Your task to perform on an android device: Clear the cart on newegg.com. Search for acer nitro on newegg.com, select the first entry, add it to the cart, then select checkout. Image 0: 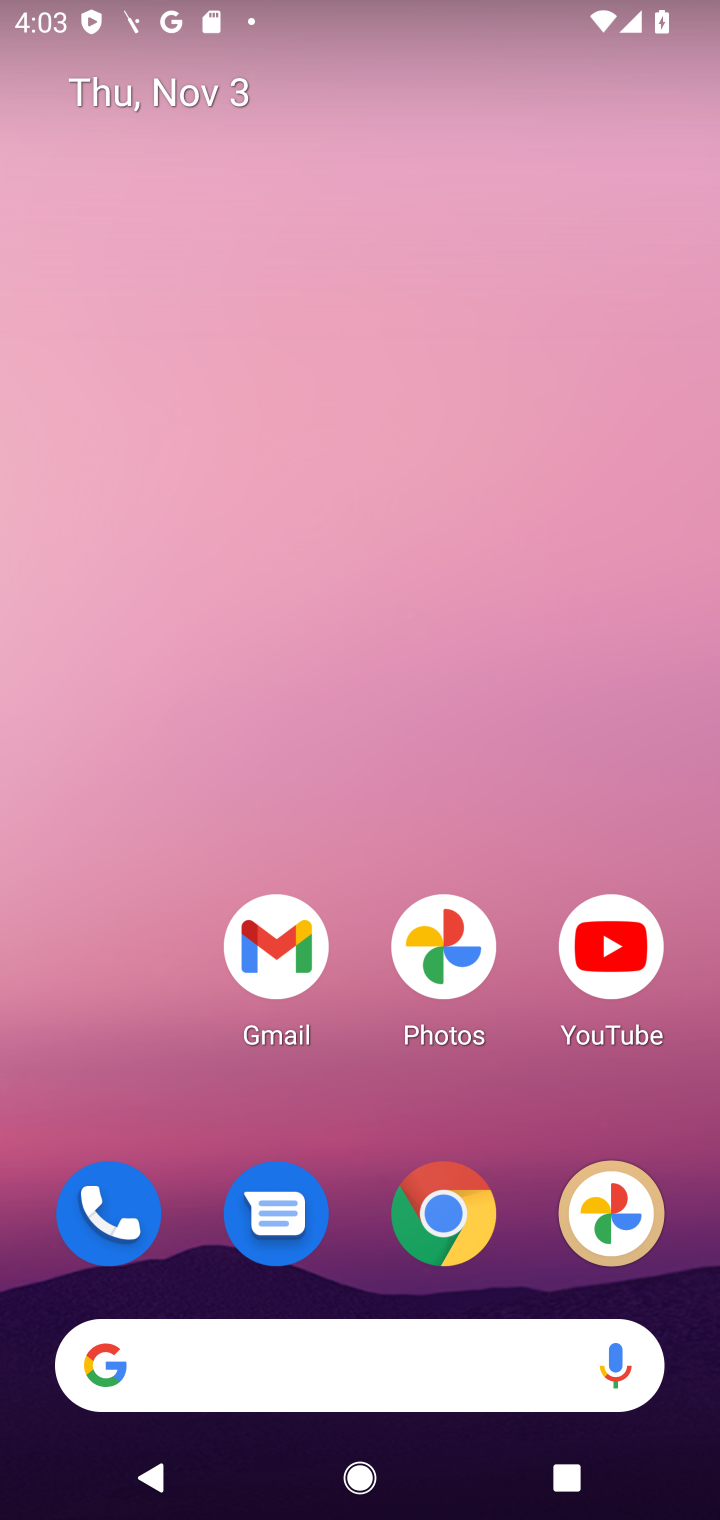
Step 0: click (453, 1229)
Your task to perform on an android device: Clear the cart on newegg.com. Search for acer nitro on newegg.com, select the first entry, add it to the cart, then select checkout. Image 1: 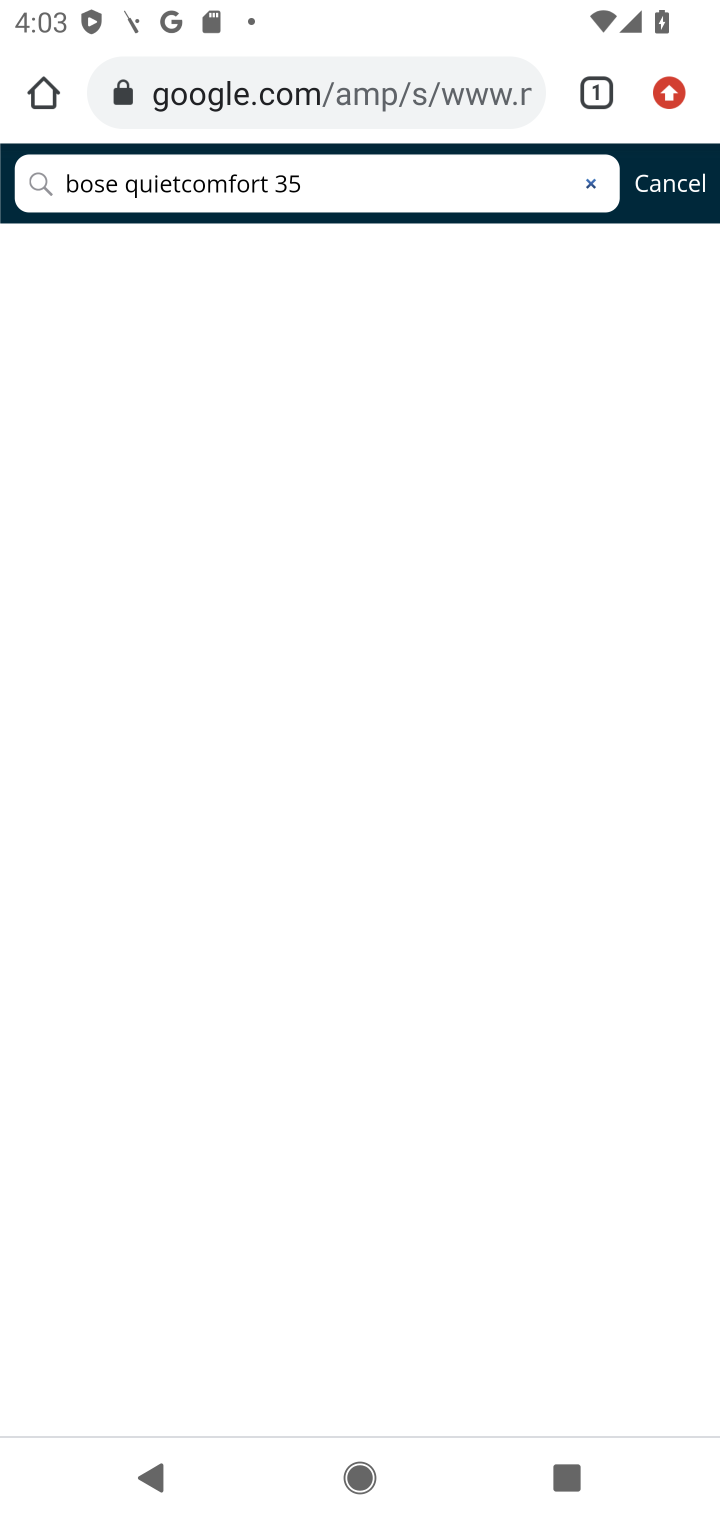
Step 1: click (300, 95)
Your task to perform on an android device: Clear the cart on newegg.com. Search for acer nitro on newegg.com, select the first entry, add it to the cart, then select checkout. Image 2: 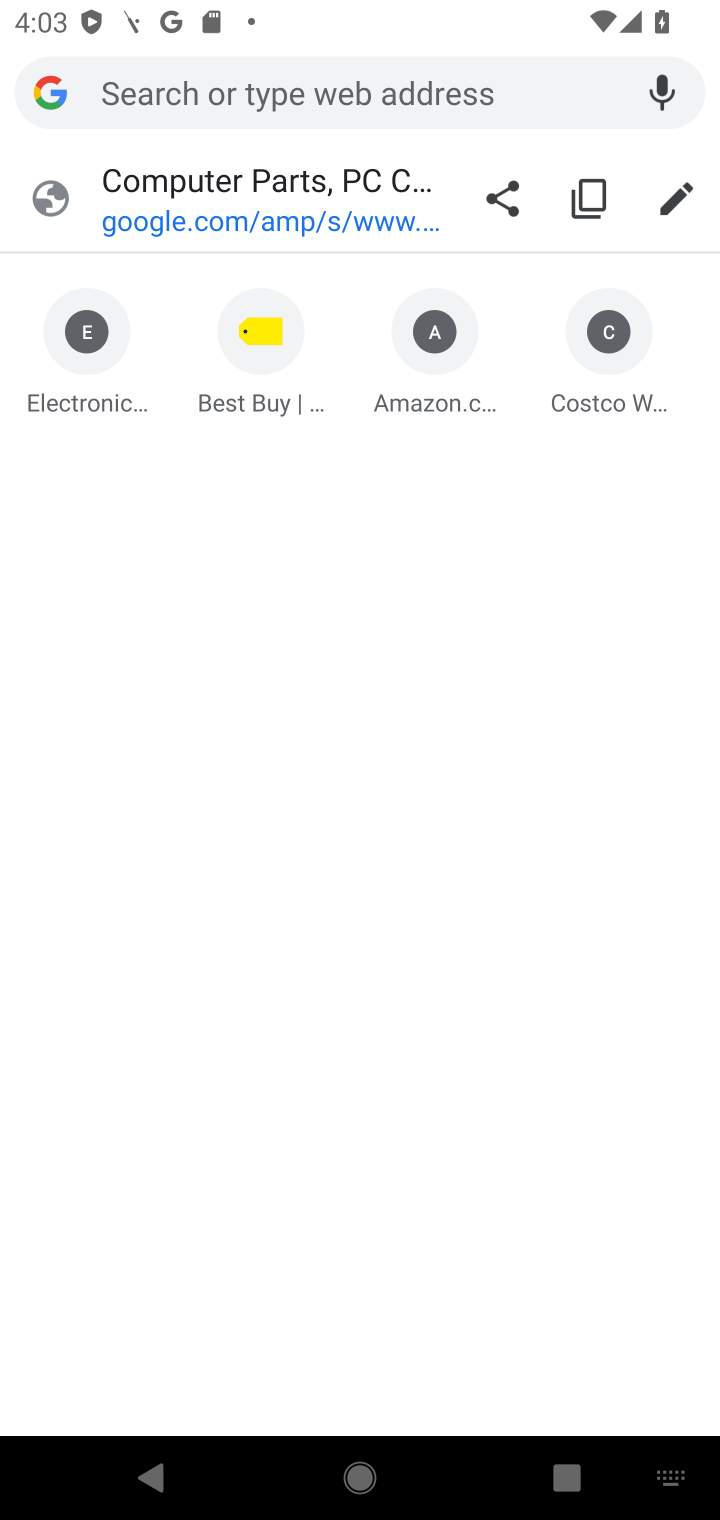
Step 2: type "newegg.com"
Your task to perform on an android device: Clear the cart on newegg.com. Search for acer nitro on newegg.com, select the first entry, add it to the cart, then select checkout. Image 3: 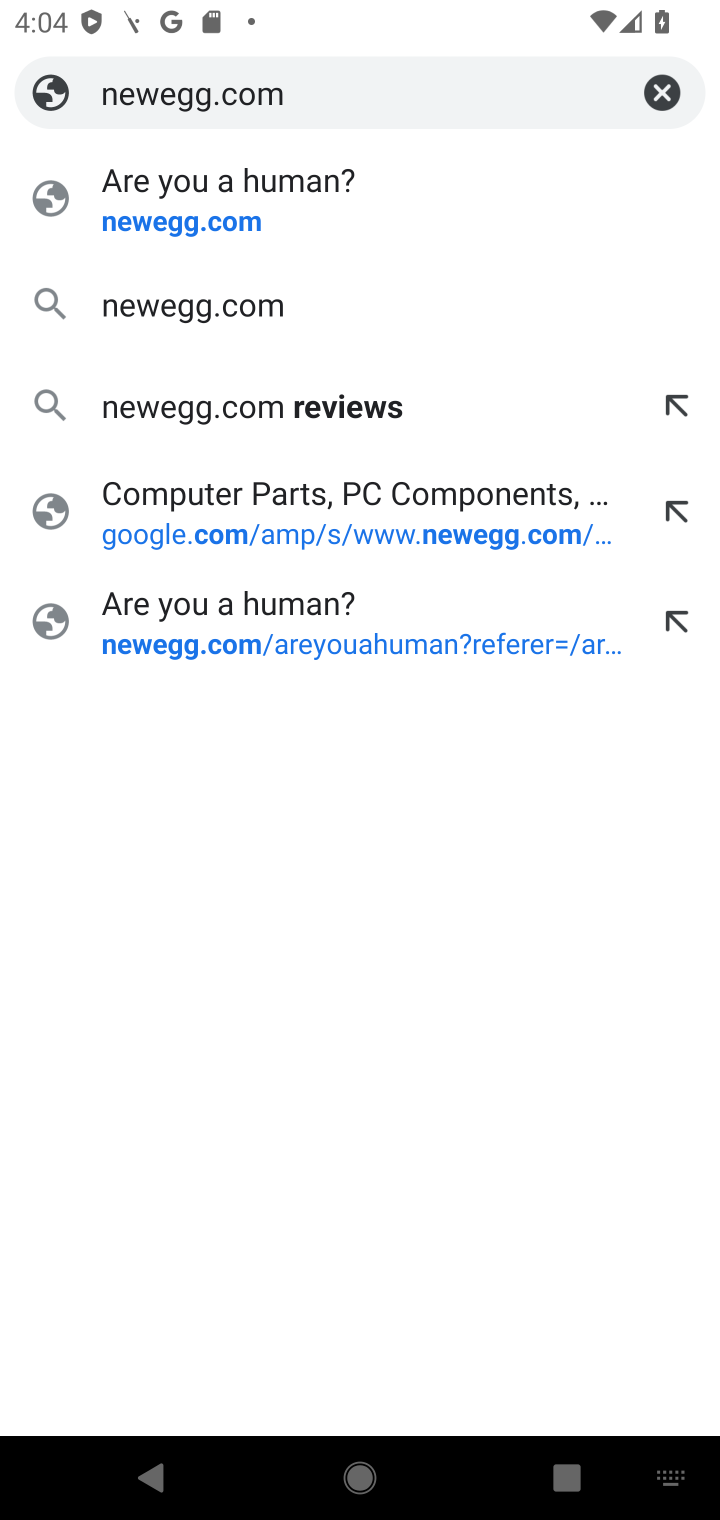
Step 3: click (133, 316)
Your task to perform on an android device: Clear the cart on newegg.com. Search for acer nitro on newegg.com, select the first entry, add it to the cart, then select checkout. Image 4: 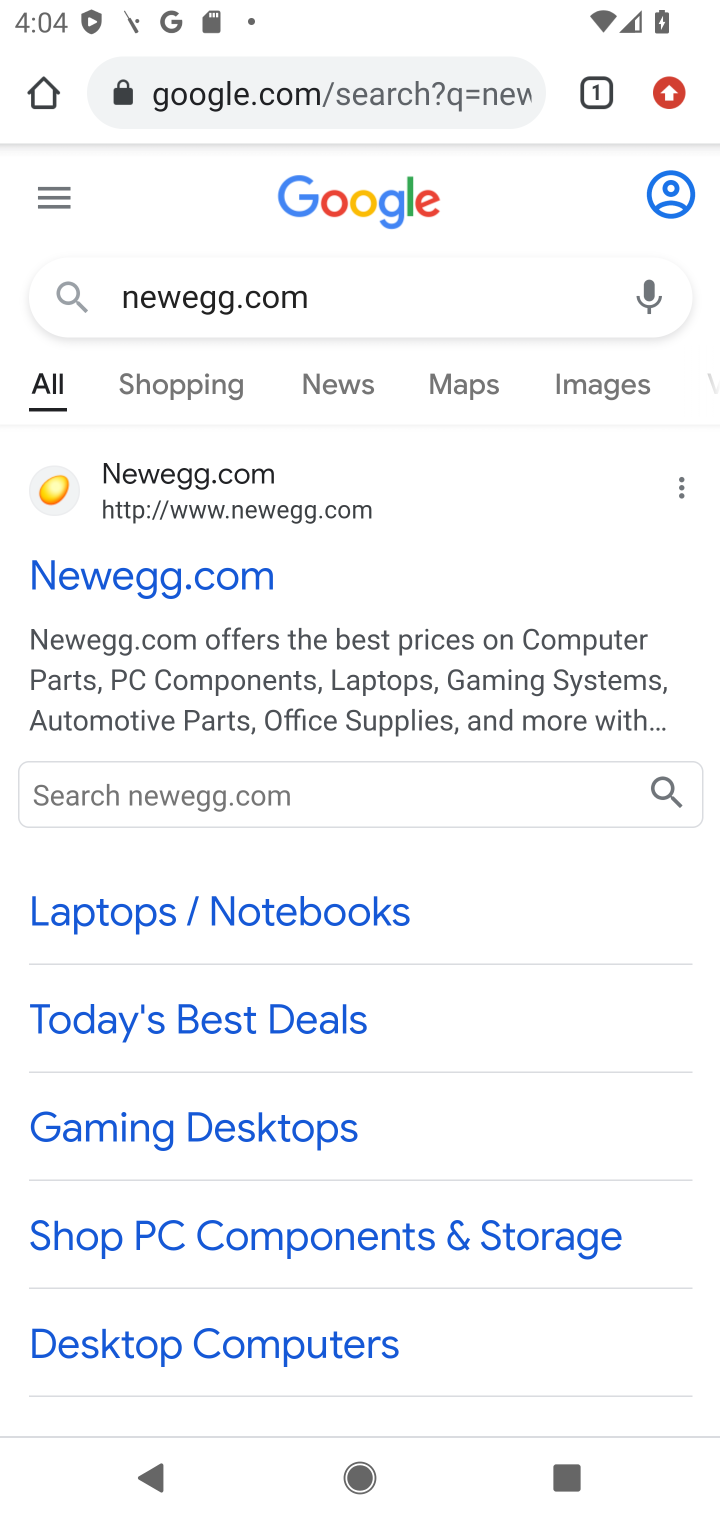
Step 4: click (136, 582)
Your task to perform on an android device: Clear the cart on newegg.com. Search for acer nitro on newegg.com, select the first entry, add it to the cart, then select checkout. Image 5: 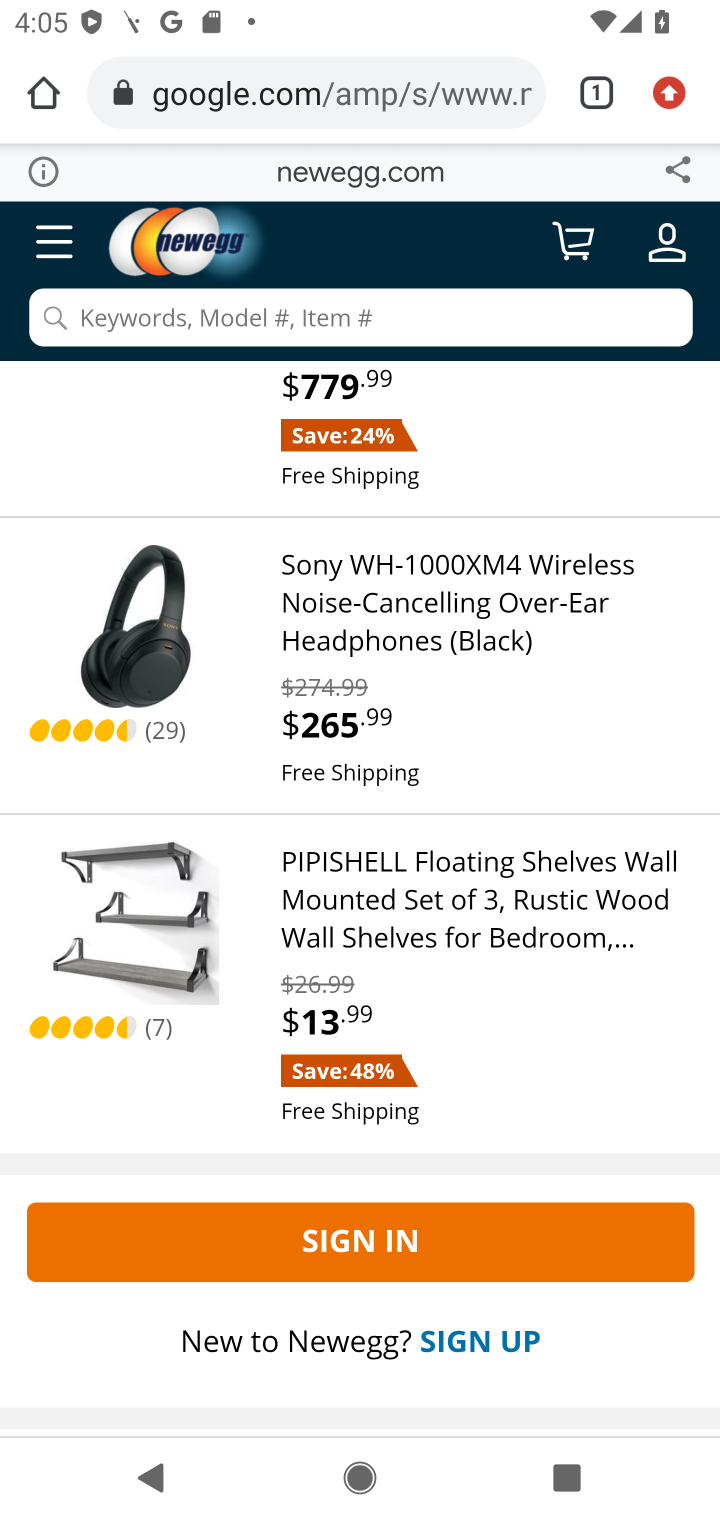
Step 5: click (255, 336)
Your task to perform on an android device: Clear the cart on newegg.com. Search for acer nitro on newegg.com, select the first entry, add it to the cart, then select checkout. Image 6: 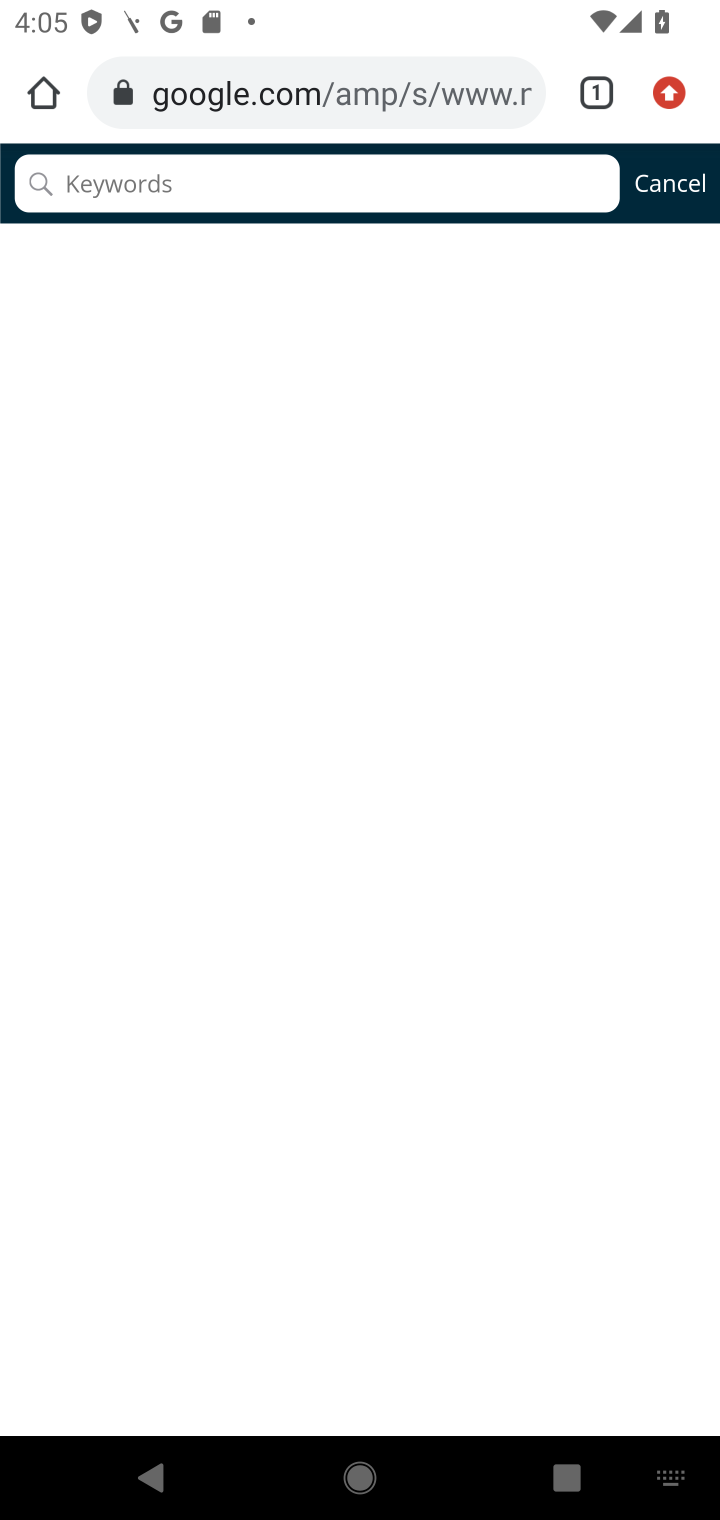
Step 6: type "acer nitro"
Your task to perform on an android device: Clear the cart on newegg.com. Search for acer nitro on newegg.com, select the first entry, add it to the cart, then select checkout. Image 7: 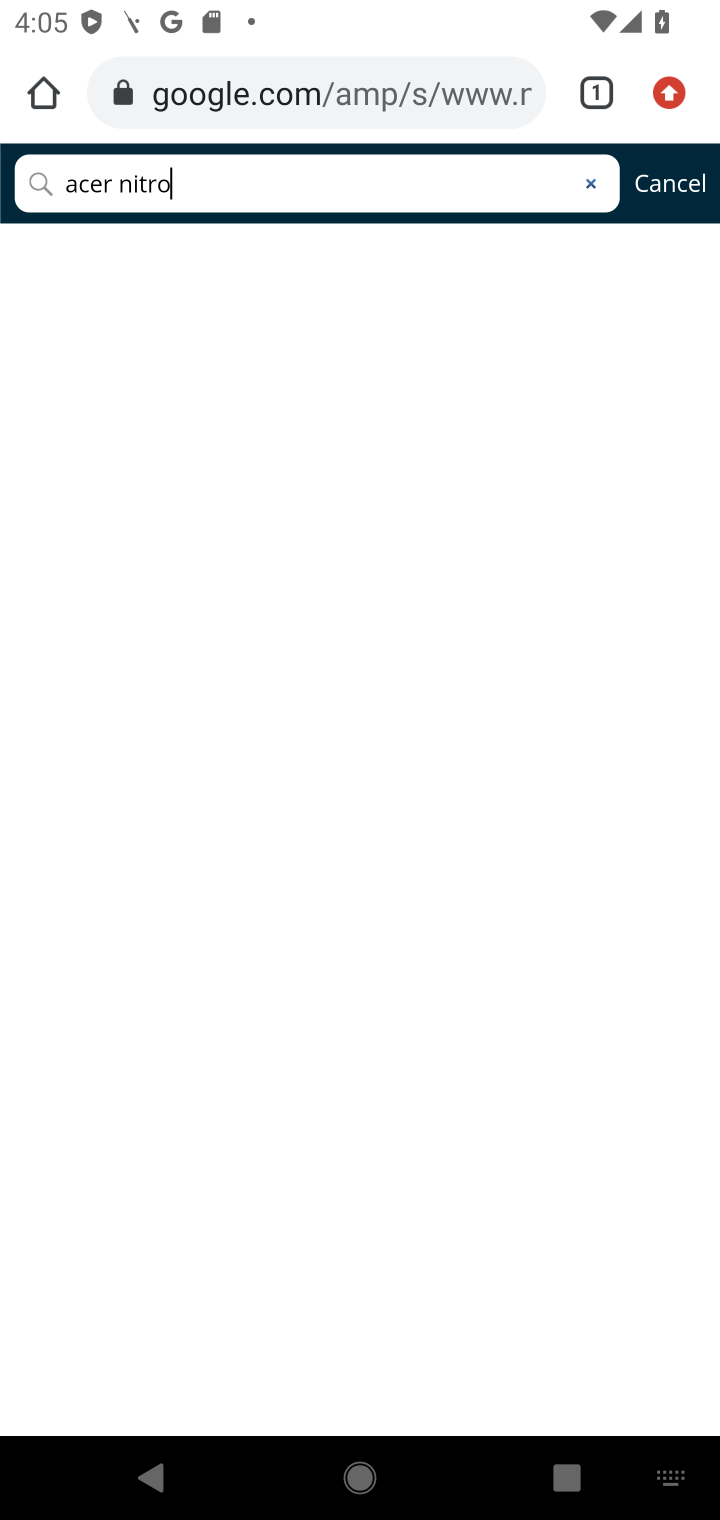
Step 7: task complete